Your task to perform on an android device: turn off translation in the chrome app Image 0: 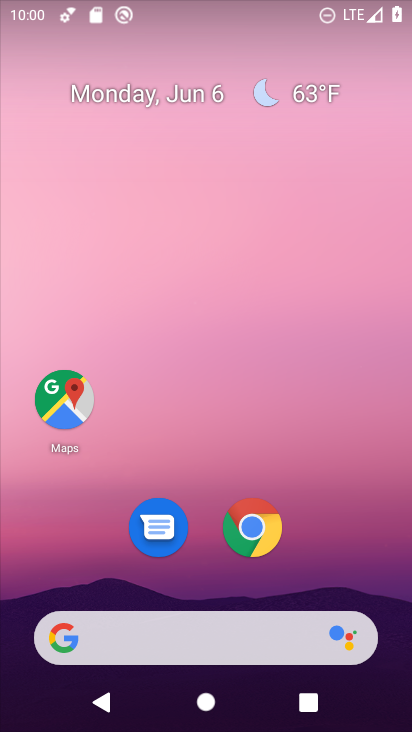
Step 0: drag from (356, 572) to (377, 141)
Your task to perform on an android device: turn off translation in the chrome app Image 1: 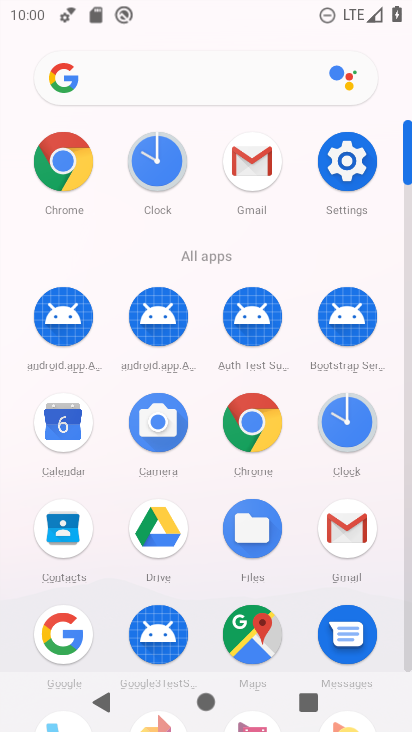
Step 1: click (266, 431)
Your task to perform on an android device: turn off translation in the chrome app Image 2: 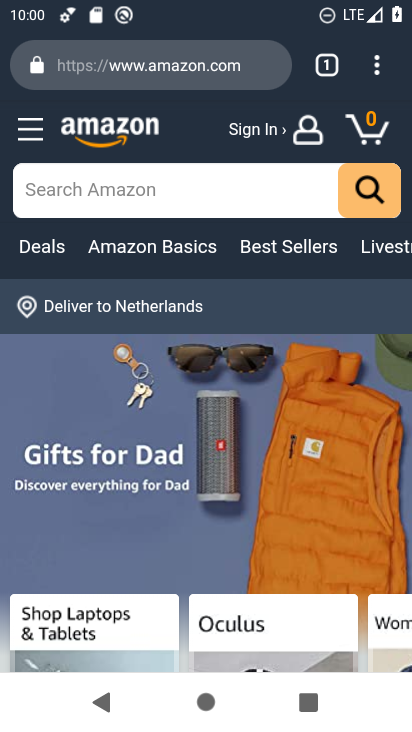
Step 2: click (380, 69)
Your task to perform on an android device: turn off translation in the chrome app Image 3: 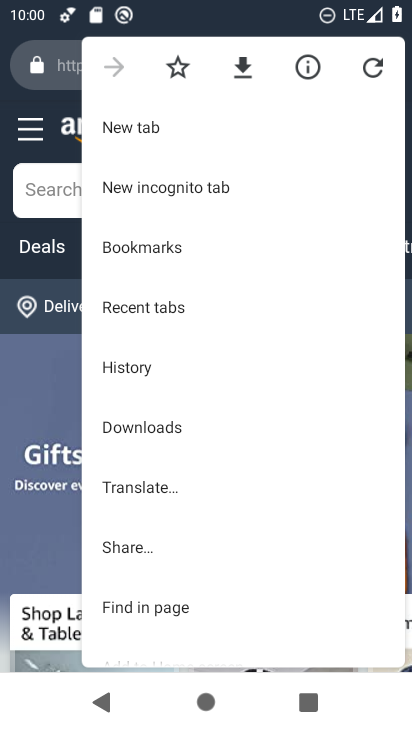
Step 3: drag from (303, 447) to (293, 347)
Your task to perform on an android device: turn off translation in the chrome app Image 4: 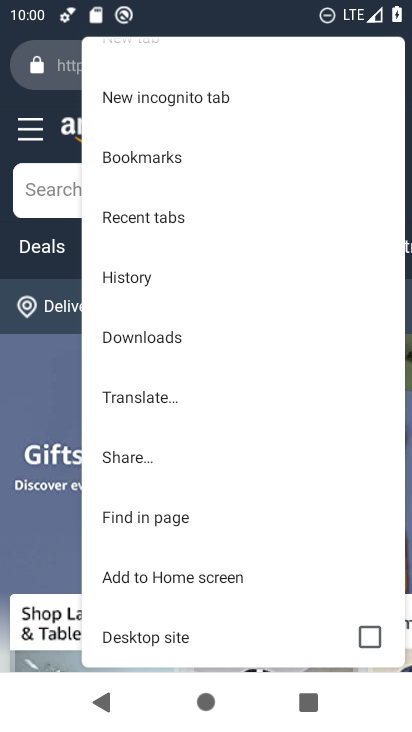
Step 4: drag from (286, 502) to (295, 308)
Your task to perform on an android device: turn off translation in the chrome app Image 5: 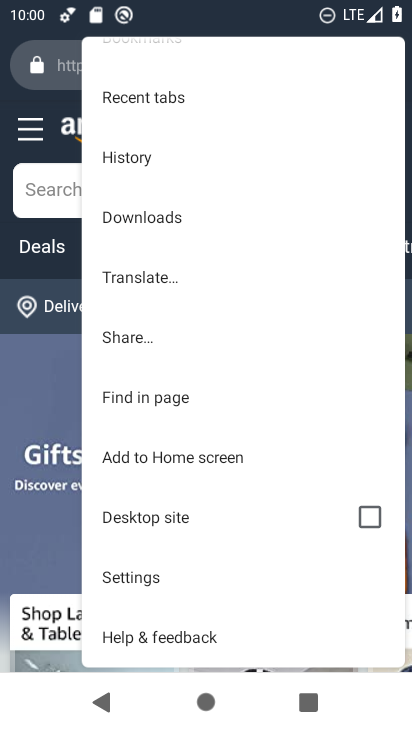
Step 5: click (193, 588)
Your task to perform on an android device: turn off translation in the chrome app Image 6: 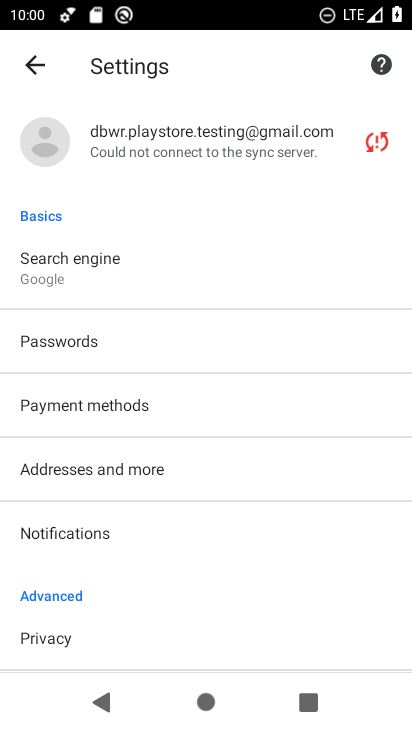
Step 6: drag from (302, 525) to (298, 417)
Your task to perform on an android device: turn off translation in the chrome app Image 7: 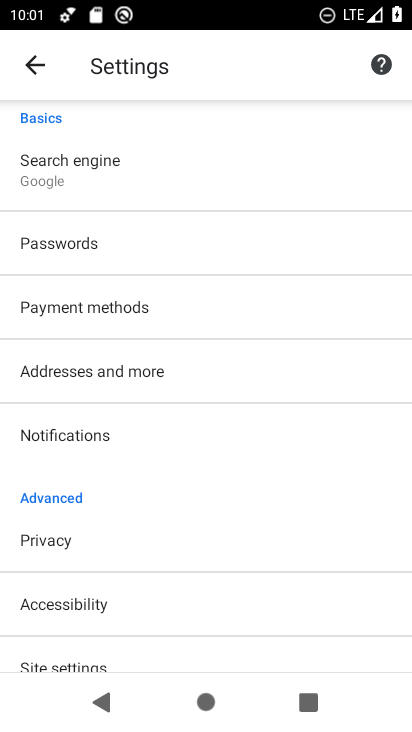
Step 7: drag from (276, 557) to (300, 418)
Your task to perform on an android device: turn off translation in the chrome app Image 8: 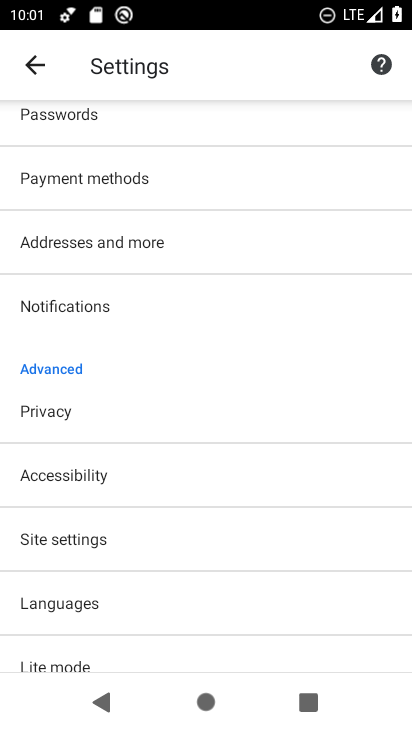
Step 8: drag from (305, 518) to (317, 410)
Your task to perform on an android device: turn off translation in the chrome app Image 9: 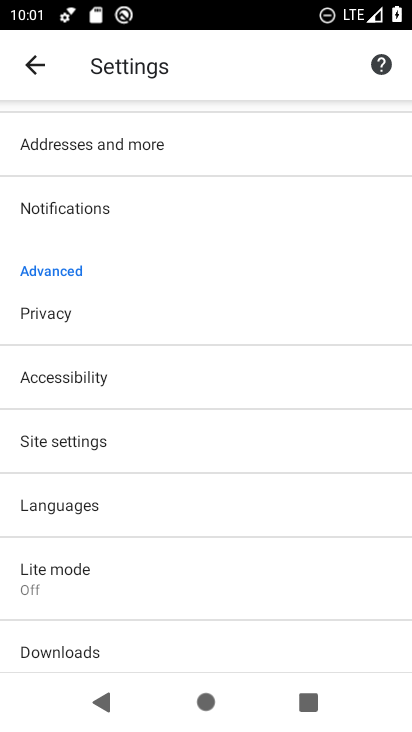
Step 9: drag from (341, 564) to (332, 397)
Your task to perform on an android device: turn off translation in the chrome app Image 10: 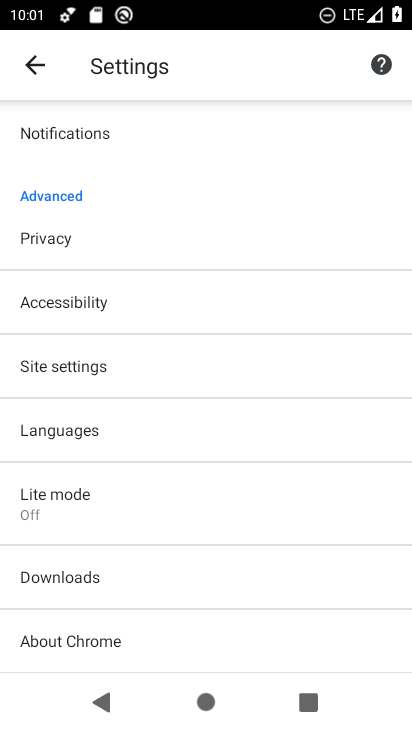
Step 10: click (139, 432)
Your task to perform on an android device: turn off translation in the chrome app Image 11: 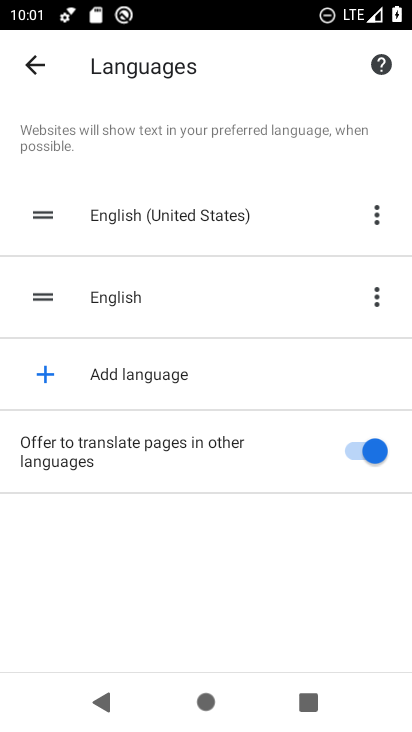
Step 11: click (368, 452)
Your task to perform on an android device: turn off translation in the chrome app Image 12: 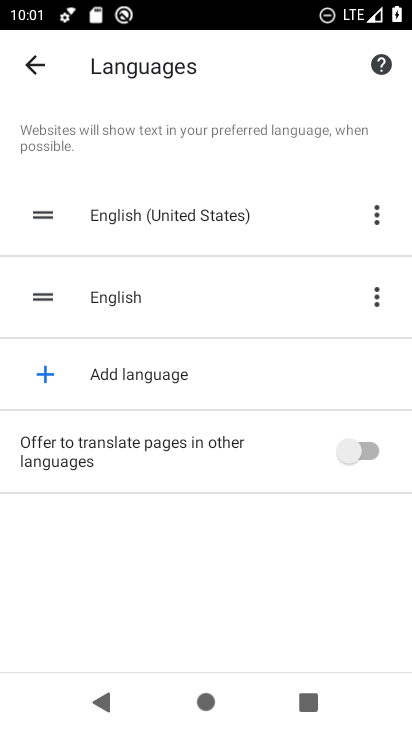
Step 12: task complete